Your task to perform on an android device: Open display settings Image 0: 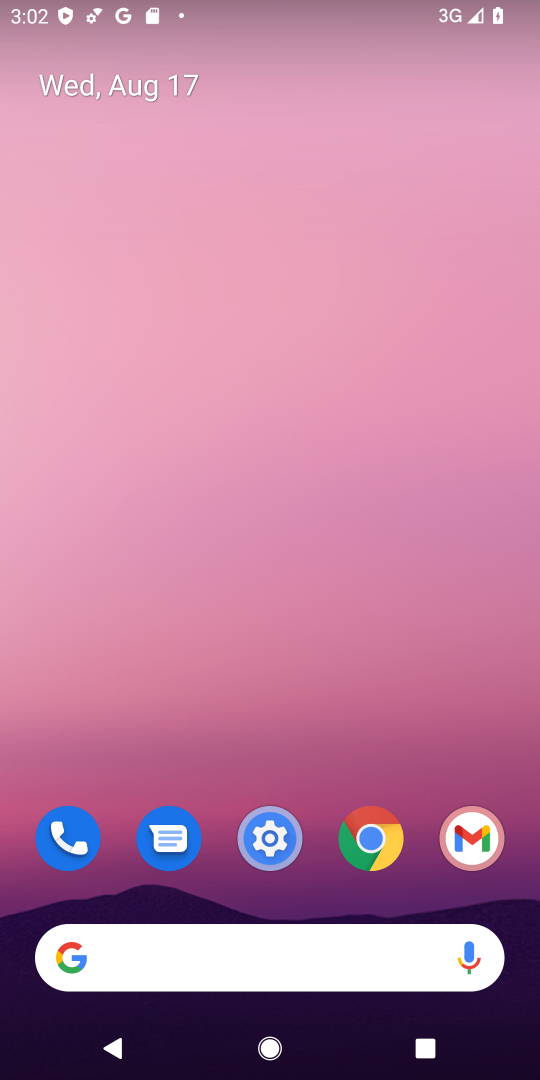
Step 0: click (255, 827)
Your task to perform on an android device: Open display settings Image 1: 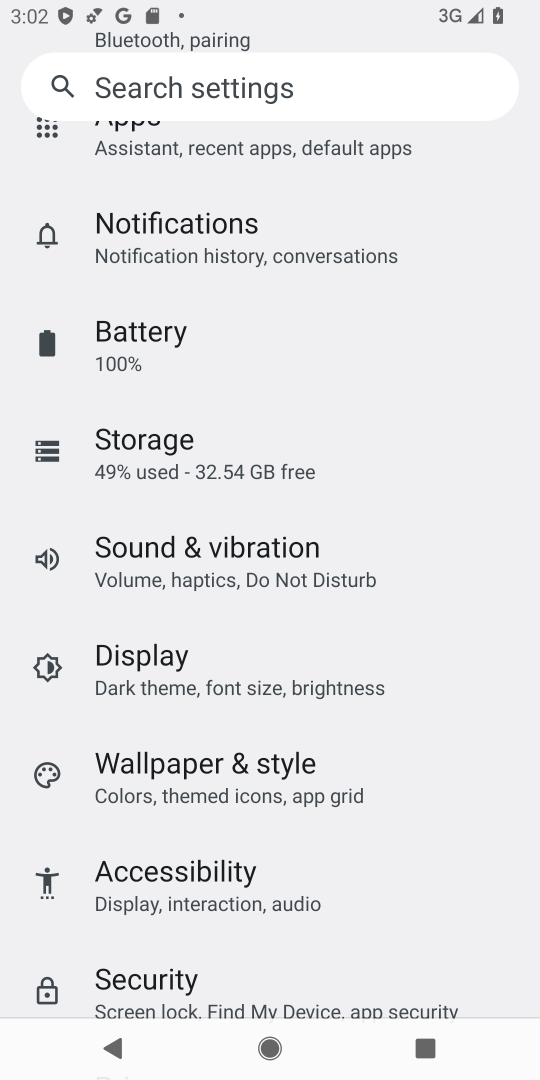
Step 1: click (234, 674)
Your task to perform on an android device: Open display settings Image 2: 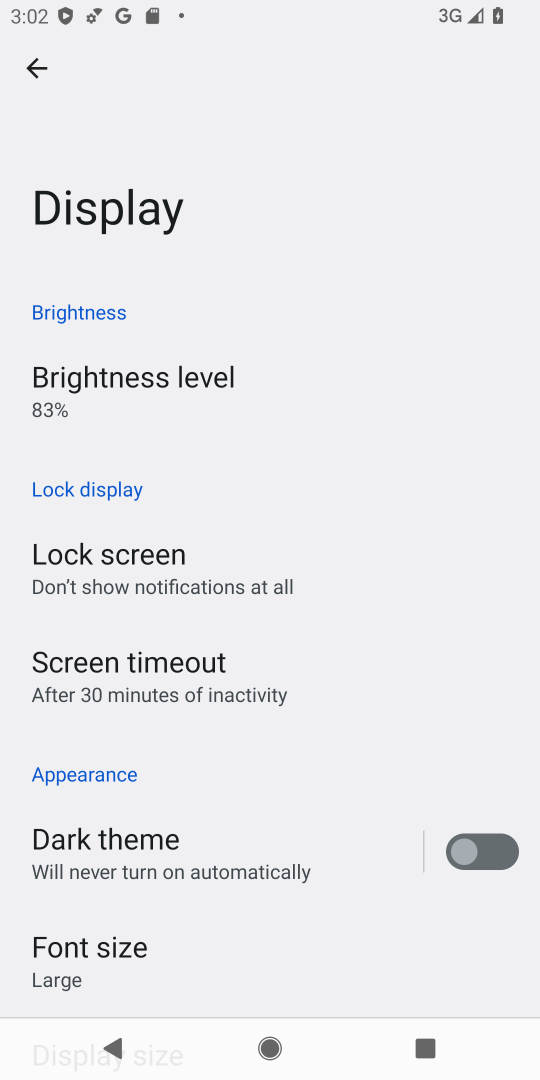
Step 2: task complete